Your task to perform on an android device: Open Chrome and go to settings Image 0: 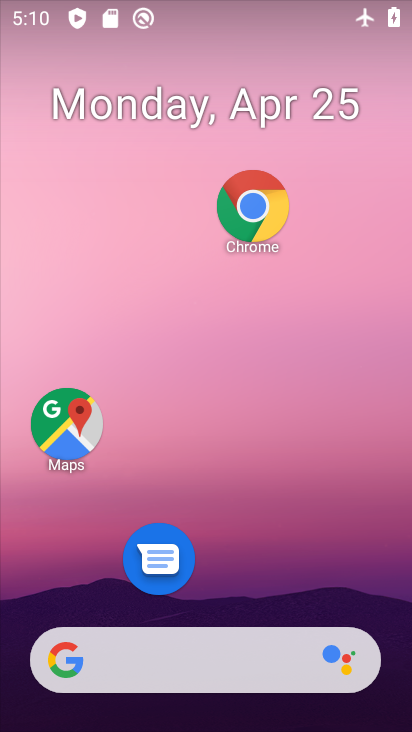
Step 0: click (250, 228)
Your task to perform on an android device: Open Chrome and go to settings Image 1: 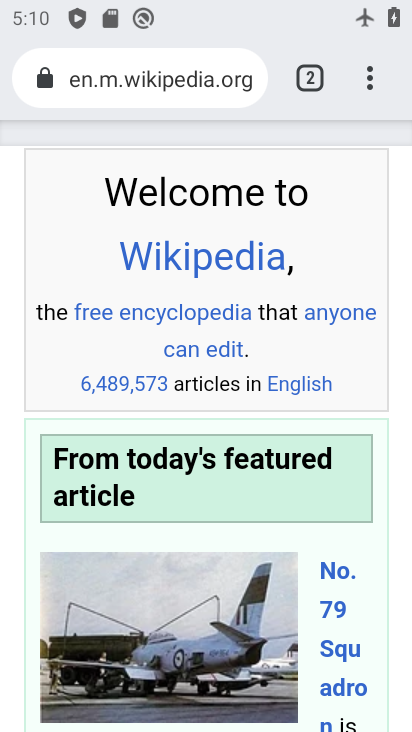
Step 1: click (372, 79)
Your task to perform on an android device: Open Chrome and go to settings Image 2: 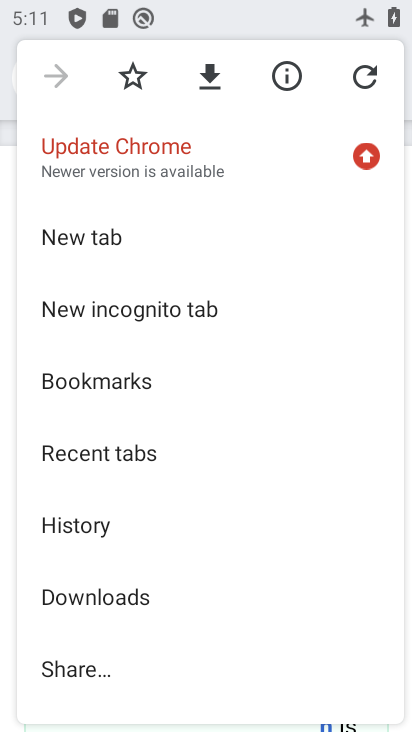
Step 2: drag from (137, 420) to (103, 145)
Your task to perform on an android device: Open Chrome and go to settings Image 3: 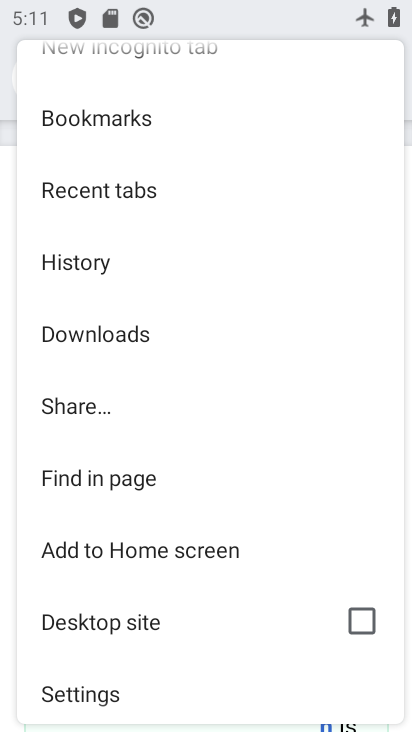
Step 3: click (85, 691)
Your task to perform on an android device: Open Chrome and go to settings Image 4: 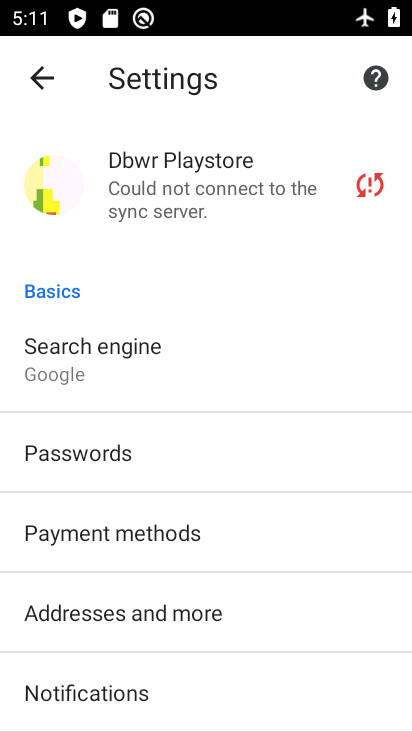
Step 4: task complete